Your task to perform on an android device: Toggle the flashlight Image 0: 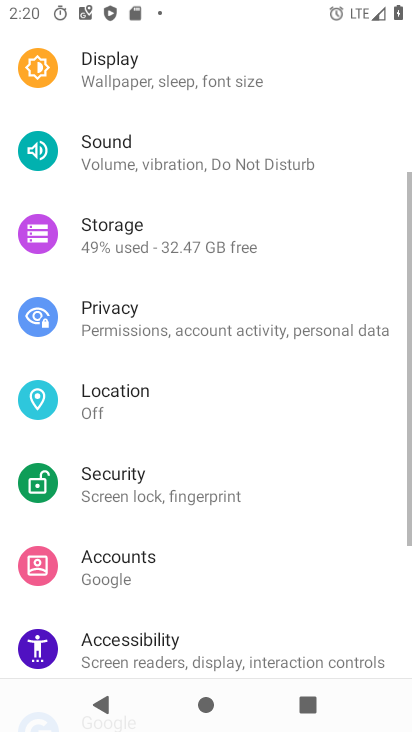
Step 0: press home button
Your task to perform on an android device: Toggle the flashlight Image 1: 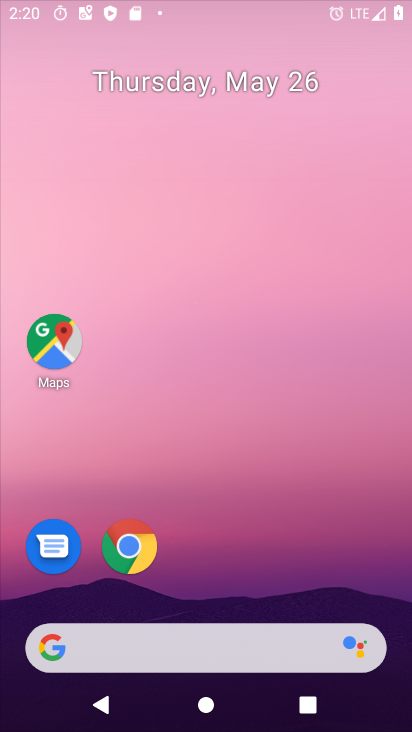
Step 1: drag from (230, 595) to (229, 69)
Your task to perform on an android device: Toggle the flashlight Image 2: 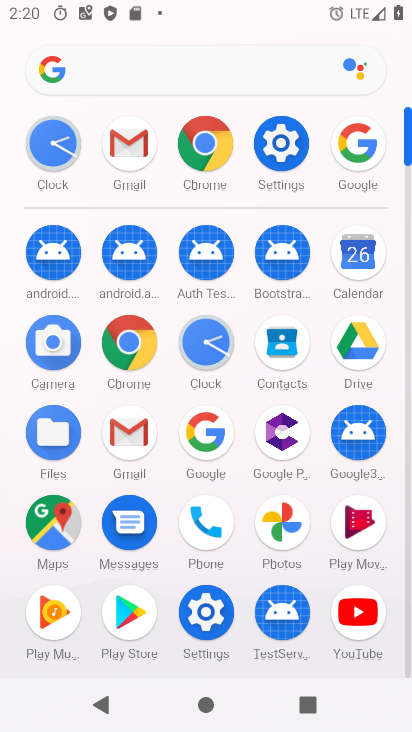
Step 2: click (271, 138)
Your task to perform on an android device: Toggle the flashlight Image 3: 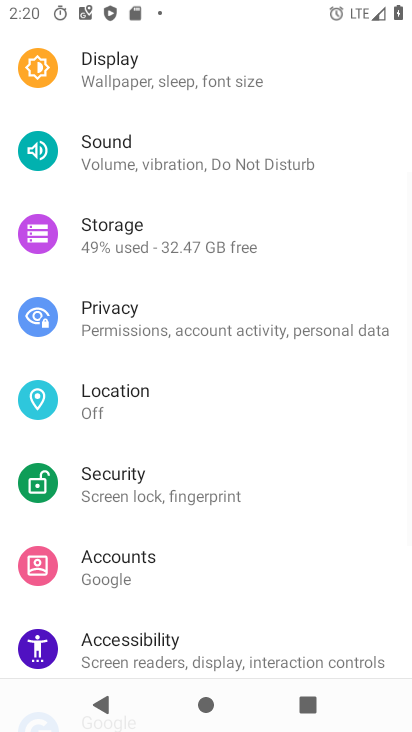
Step 3: drag from (222, 142) to (285, 570)
Your task to perform on an android device: Toggle the flashlight Image 4: 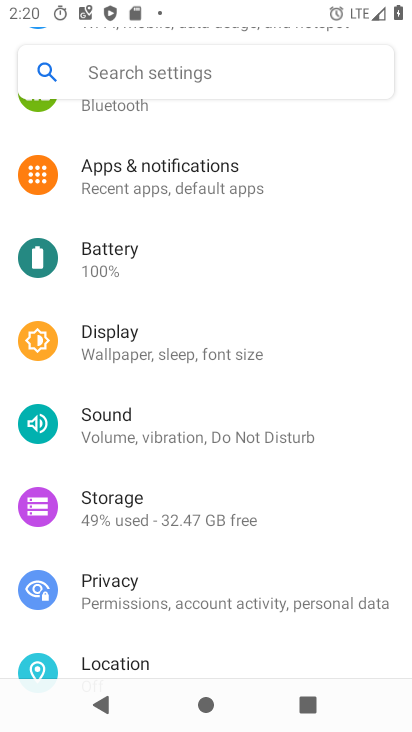
Step 4: click (183, 75)
Your task to perform on an android device: Toggle the flashlight Image 5: 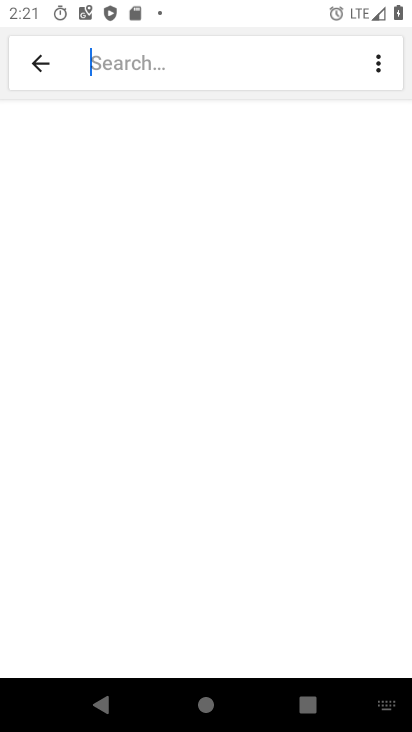
Step 5: type "flash"
Your task to perform on an android device: Toggle the flashlight Image 6: 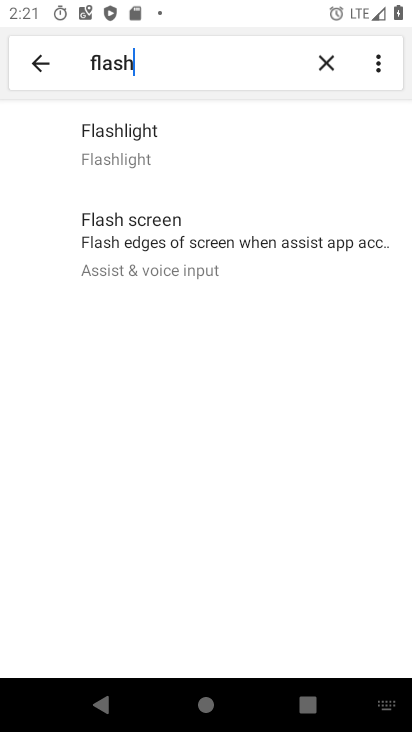
Step 6: task complete